Your task to perform on an android device: open sync settings in chrome Image 0: 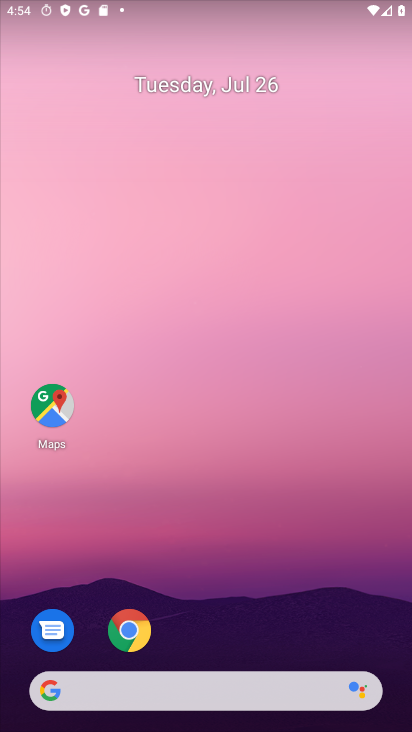
Step 0: drag from (312, 612) to (215, 2)
Your task to perform on an android device: open sync settings in chrome Image 1: 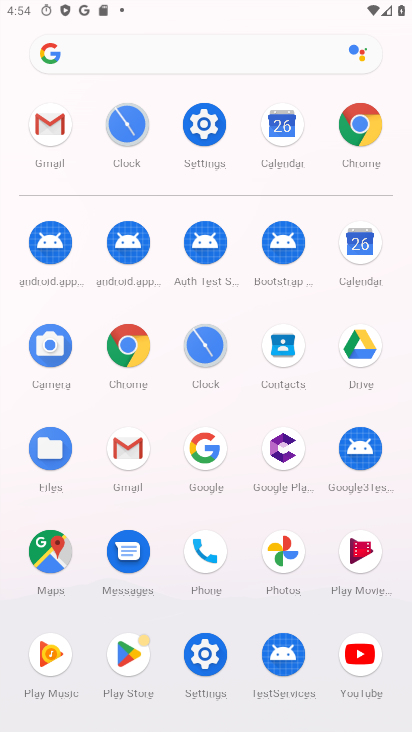
Step 1: click (355, 121)
Your task to perform on an android device: open sync settings in chrome Image 2: 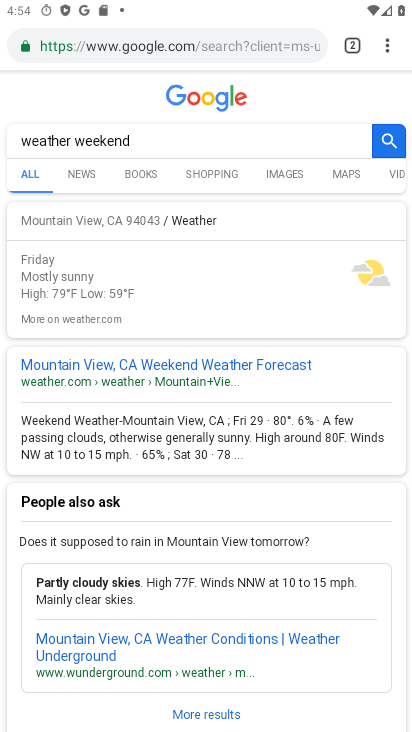
Step 2: click (385, 44)
Your task to perform on an android device: open sync settings in chrome Image 3: 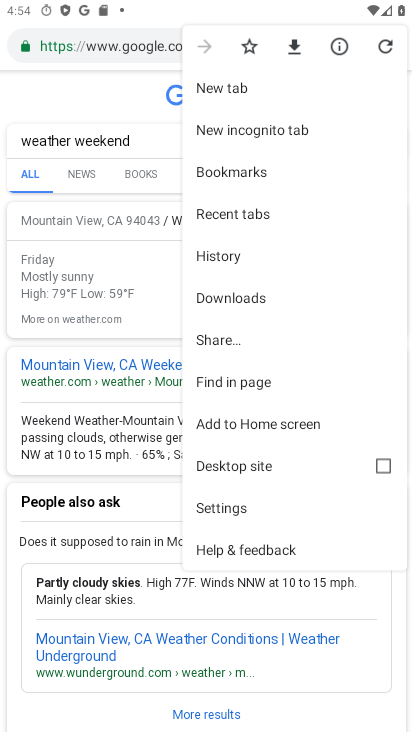
Step 3: click (238, 504)
Your task to perform on an android device: open sync settings in chrome Image 4: 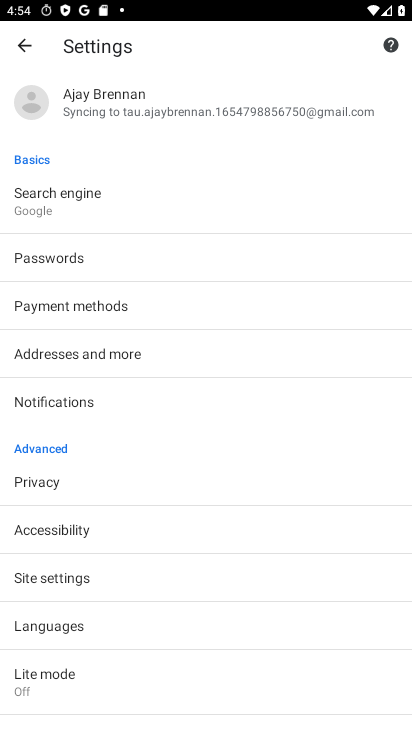
Step 4: click (126, 95)
Your task to perform on an android device: open sync settings in chrome Image 5: 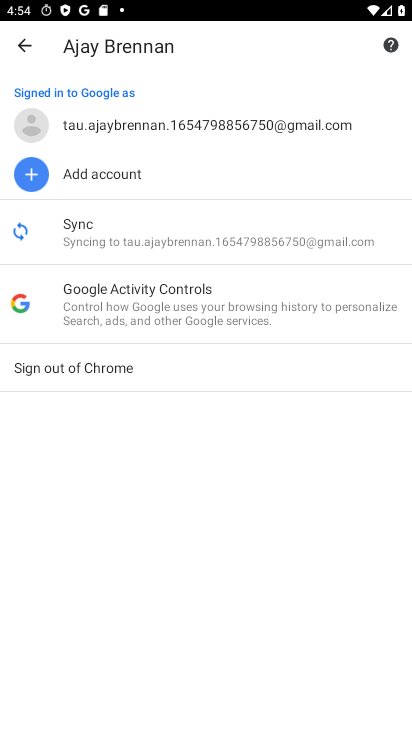
Step 5: click (125, 227)
Your task to perform on an android device: open sync settings in chrome Image 6: 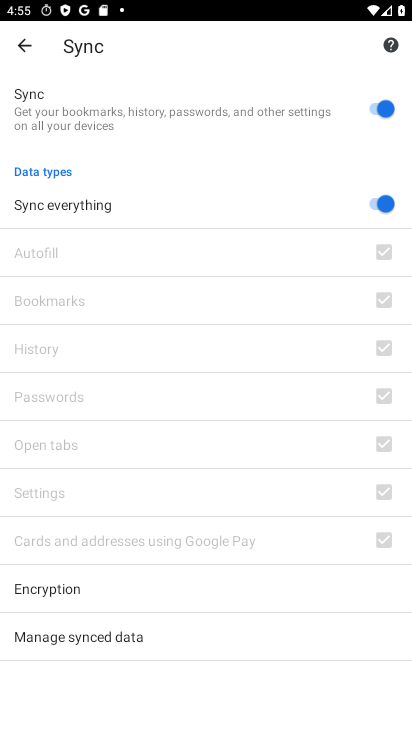
Step 6: task complete